Your task to perform on an android device: Open my contact list Image 0: 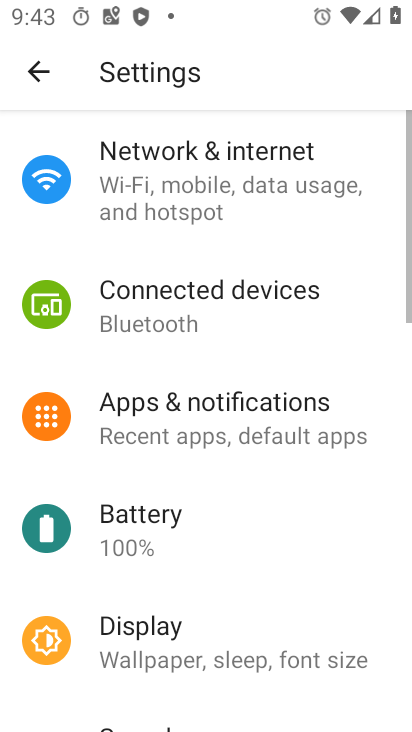
Step 0: press back button
Your task to perform on an android device: Open my contact list Image 1: 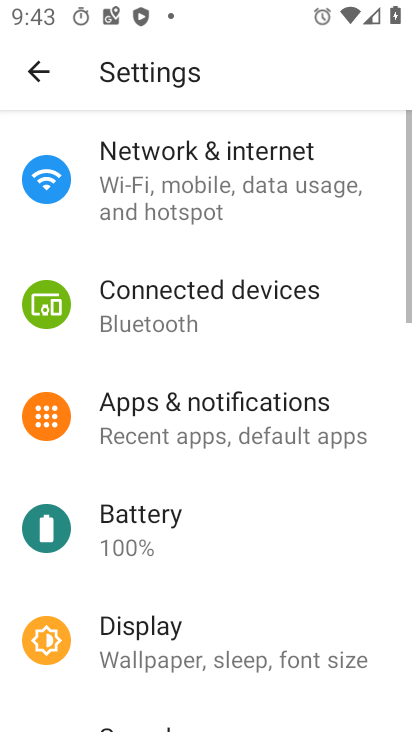
Step 1: press back button
Your task to perform on an android device: Open my contact list Image 2: 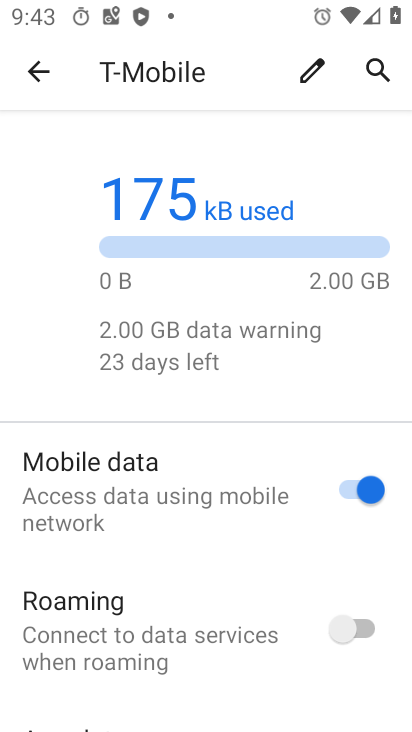
Step 2: click (27, 79)
Your task to perform on an android device: Open my contact list Image 3: 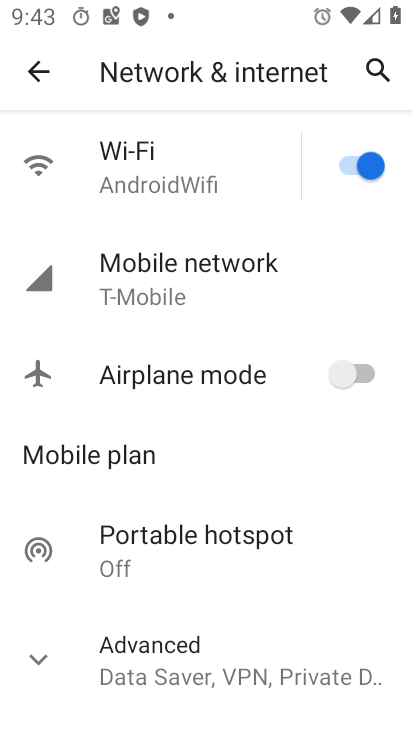
Step 3: press back button
Your task to perform on an android device: Open my contact list Image 4: 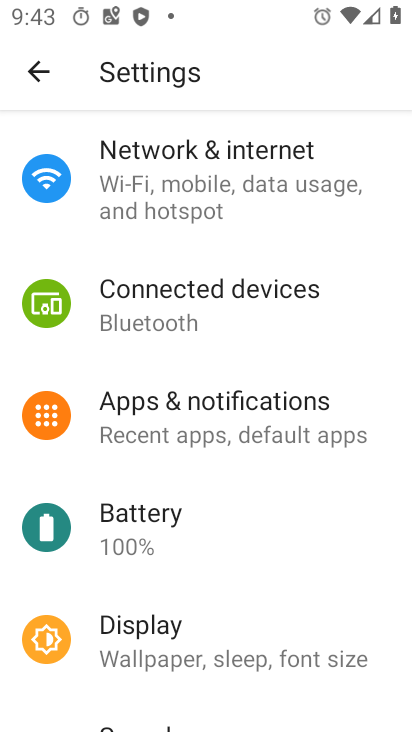
Step 4: drag from (187, 531) to (112, 189)
Your task to perform on an android device: Open my contact list Image 5: 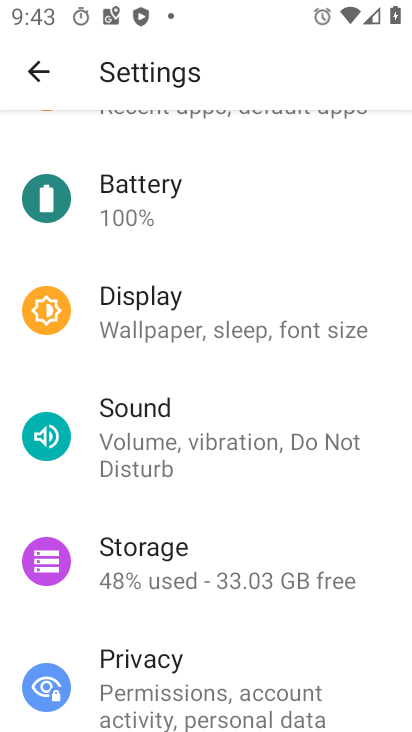
Step 5: press home button
Your task to perform on an android device: Open my contact list Image 6: 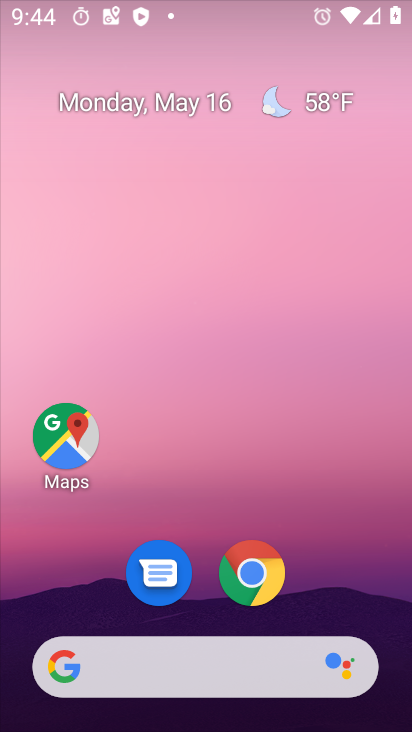
Step 6: press home button
Your task to perform on an android device: Open my contact list Image 7: 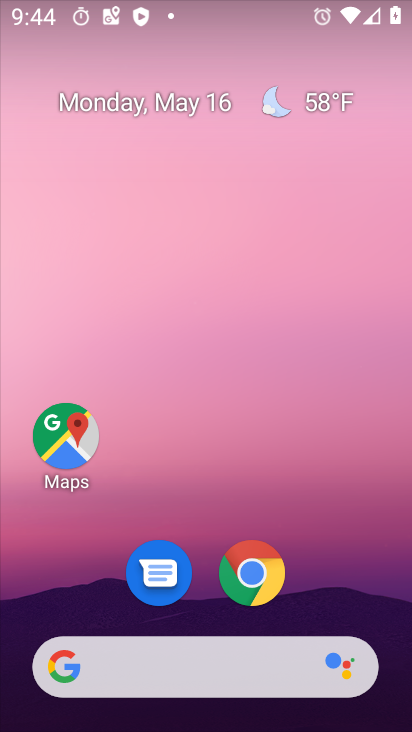
Step 7: drag from (281, 685) to (164, 43)
Your task to perform on an android device: Open my contact list Image 8: 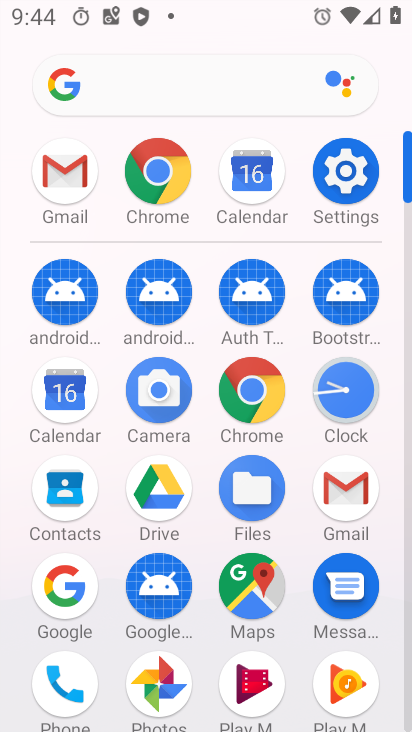
Step 8: click (87, 498)
Your task to perform on an android device: Open my contact list Image 9: 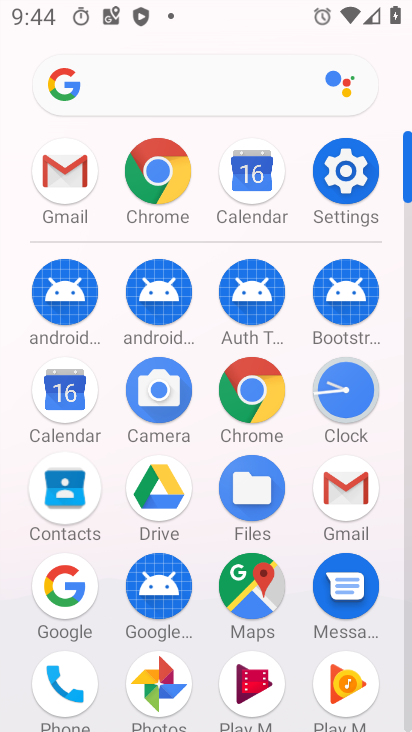
Step 9: click (81, 494)
Your task to perform on an android device: Open my contact list Image 10: 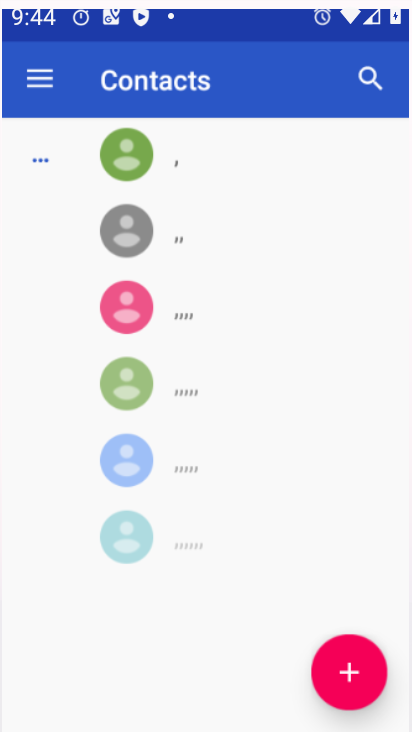
Step 10: click (80, 495)
Your task to perform on an android device: Open my contact list Image 11: 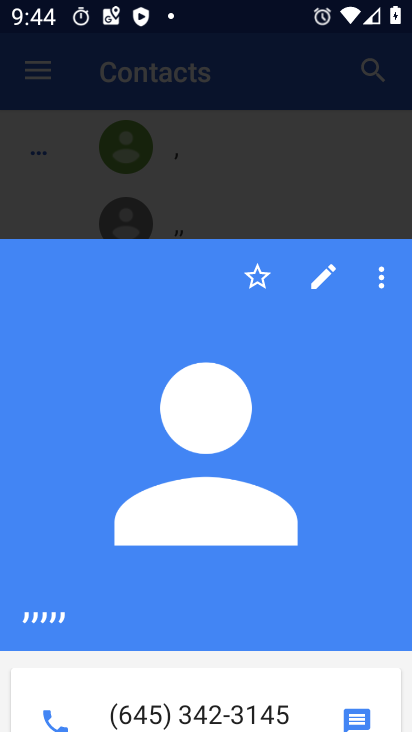
Step 11: task complete